Your task to perform on an android device: Open wifi settings Image 0: 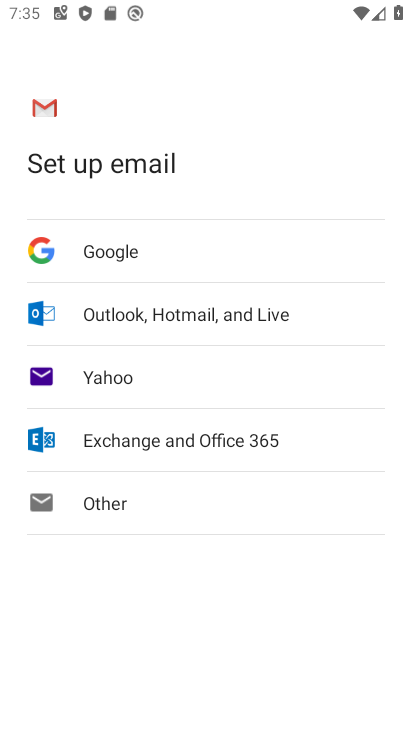
Step 0: press back button
Your task to perform on an android device: Open wifi settings Image 1: 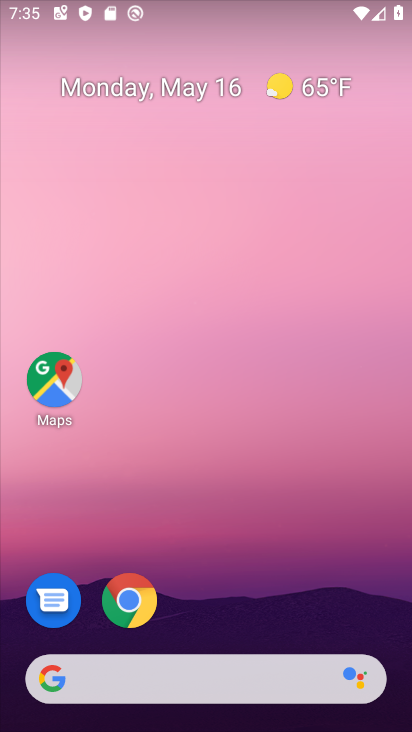
Step 1: drag from (212, 630) to (176, 16)
Your task to perform on an android device: Open wifi settings Image 2: 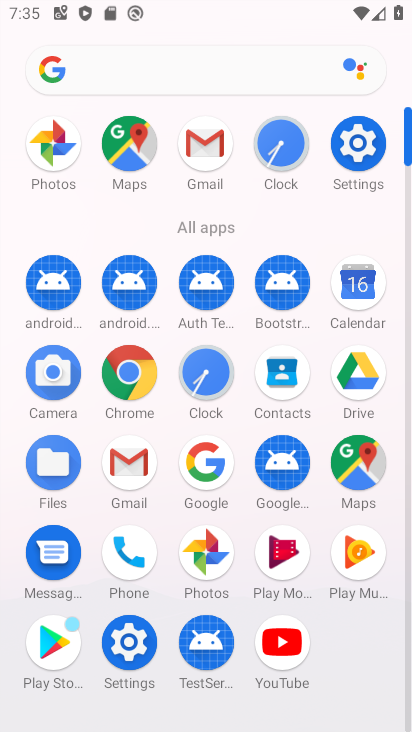
Step 2: click (366, 133)
Your task to perform on an android device: Open wifi settings Image 3: 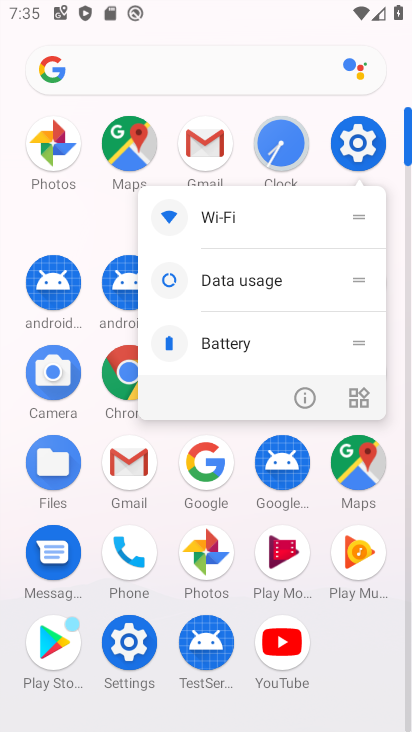
Step 3: click (249, 207)
Your task to perform on an android device: Open wifi settings Image 4: 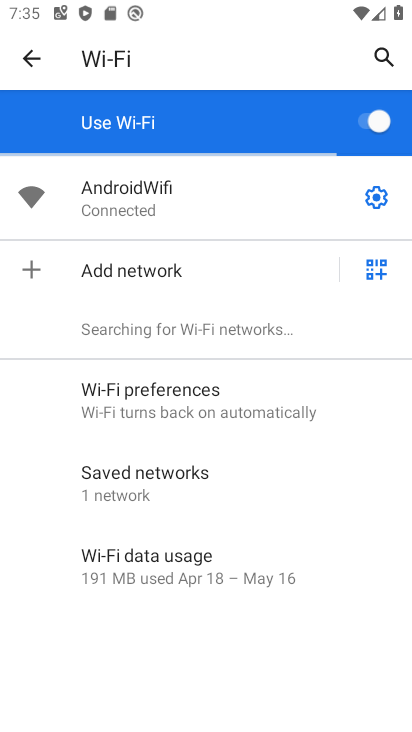
Step 4: task complete